Your task to perform on an android device: What's the weather today? Image 0: 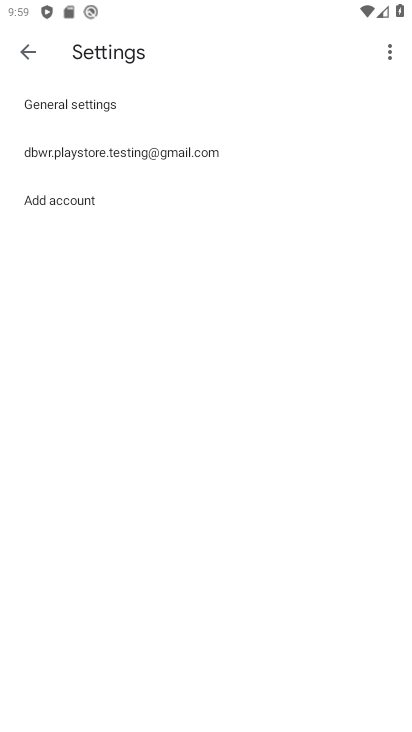
Step 0: press home button
Your task to perform on an android device: What's the weather today? Image 1: 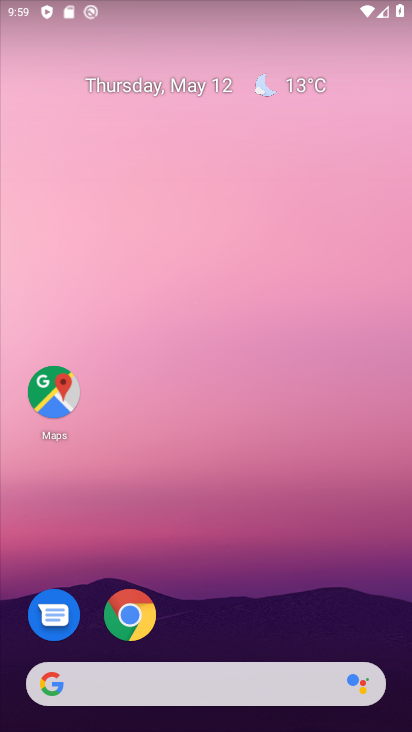
Step 1: click (296, 85)
Your task to perform on an android device: What's the weather today? Image 2: 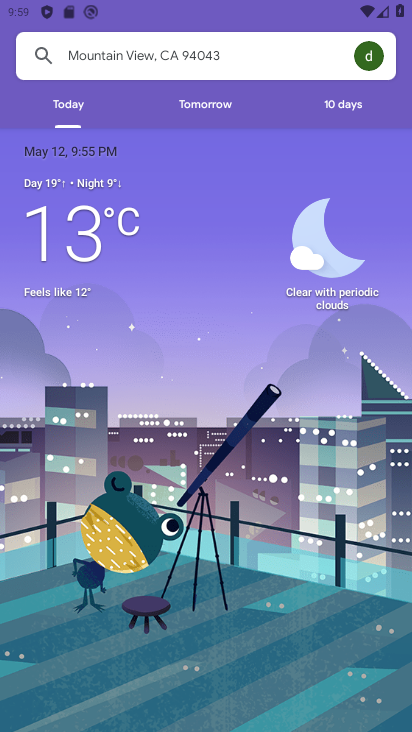
Step 2: task complete